Your task to perform on an android device: Open calendar and show me the first week of next month Image 0: 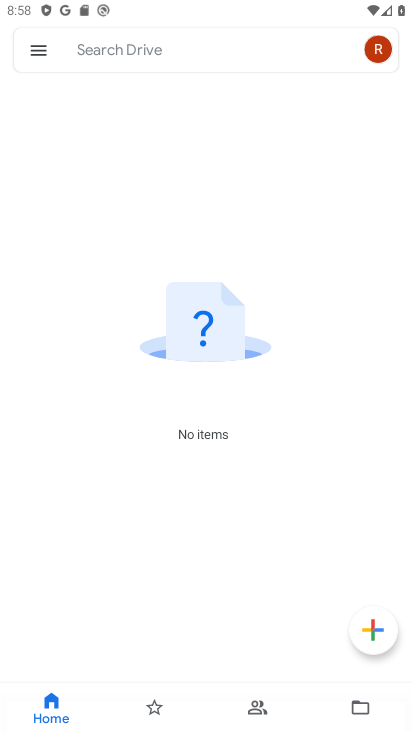
Step 0: press home button
Your task to perform on an android device: Open calendar and show me the first week of next month Image 1: 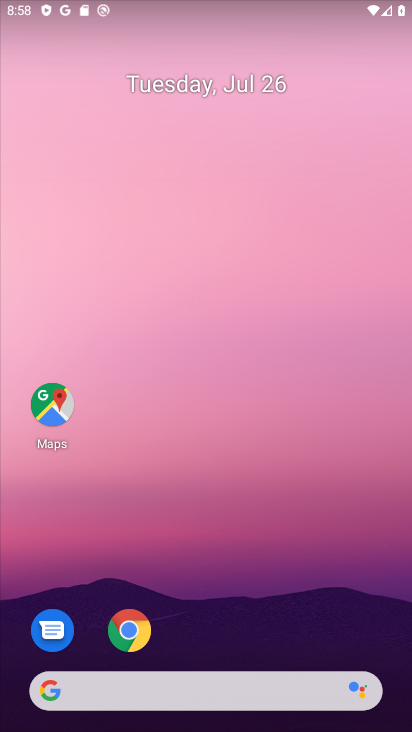
Step 1: drag from (241, 641) to (153, 129)
Your task to perform on an android device: Open calendar and show me the first week of next month Image 2: 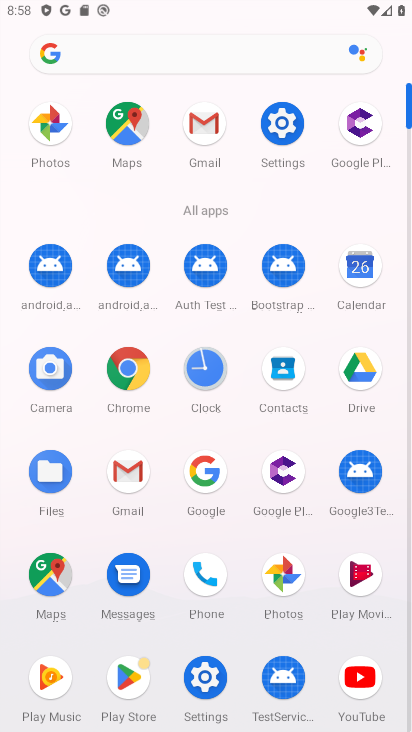
Step 2: click (354, 271)
Your task to perform on an android device: Open calendar and show me the first week of next month Image 3: 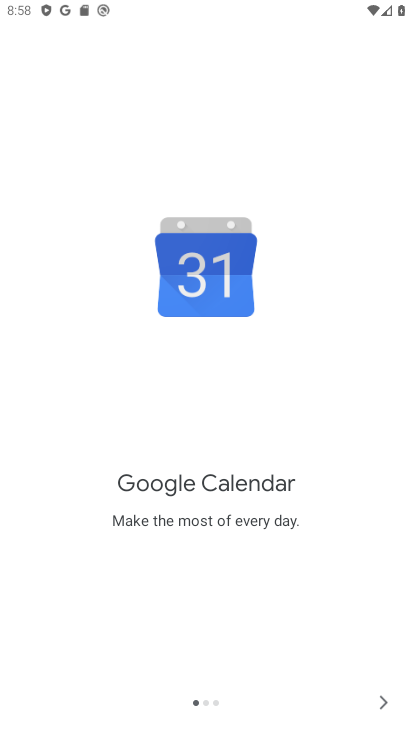
Step 3: click (379, 710)
Your task to perform on an android device: Open calendar and show me the first week of next month Image 4: 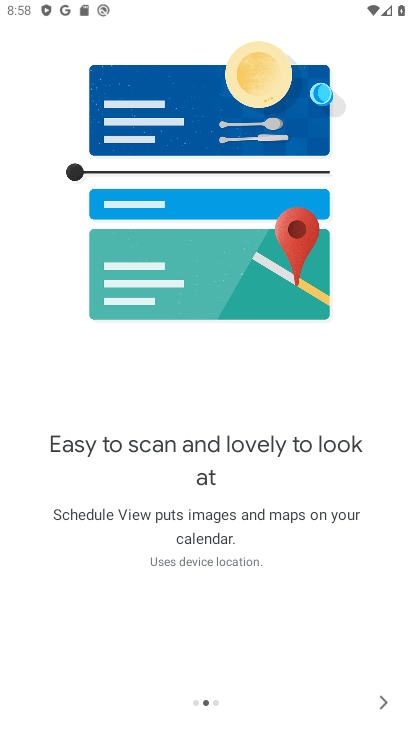
Step 4: click (379, 710)
Your task to perform on an android device: Open calendar and show me the first week of next month Image 5: 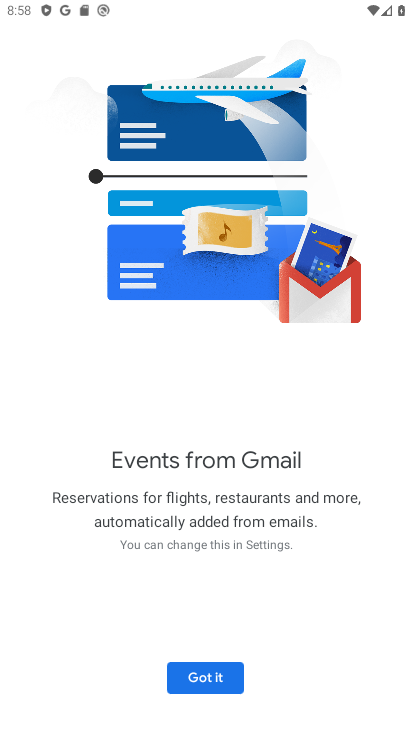
Step 5: click (224, 684)
Your task to perform on an android device: Open calendar and show me the first week of next month Image 6: 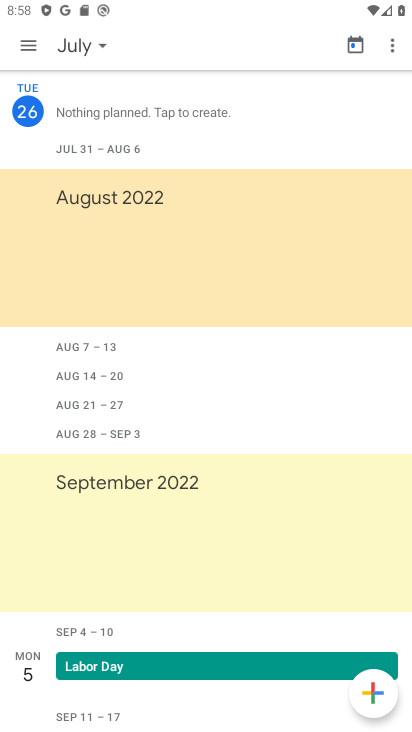
Step 6: click (25, 41)
Your task to perform on an android device: Open calendar and show me the first week of next month Image 7: 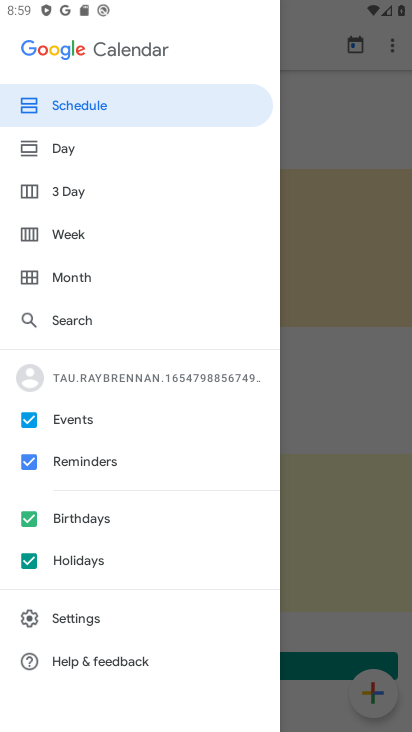
Step 7: click (69, 237)
Your task to perform on an android device: Open calendar and show me the first week of next month Image 8: 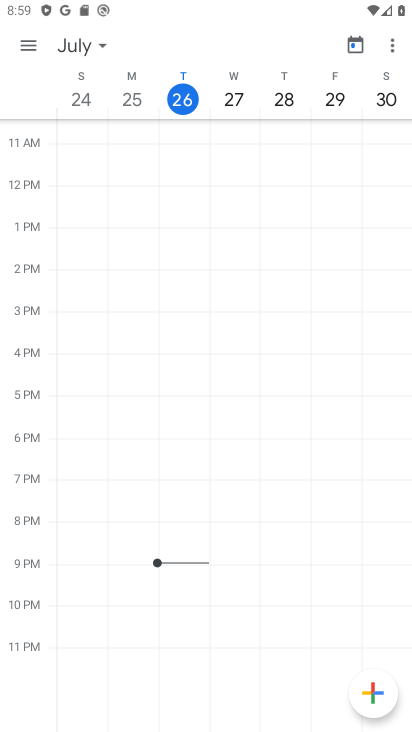
Step 8: click (100, 48)
Your task to perform on an android device: Open calendar and show me the first week of next month Image 9: 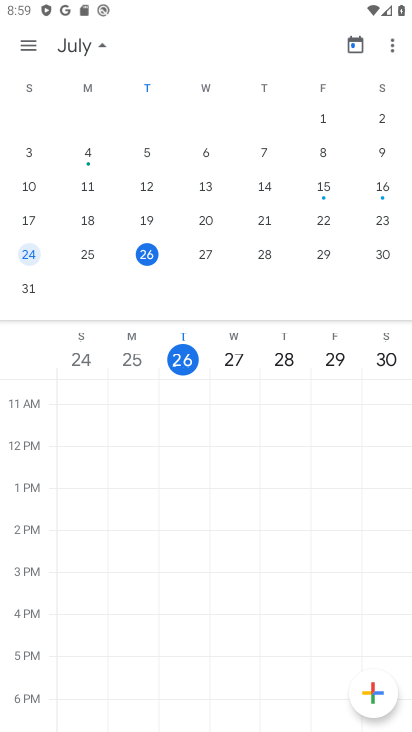
Step 9: task complete